Your task to perform on an android device: Open display settings Image 0: 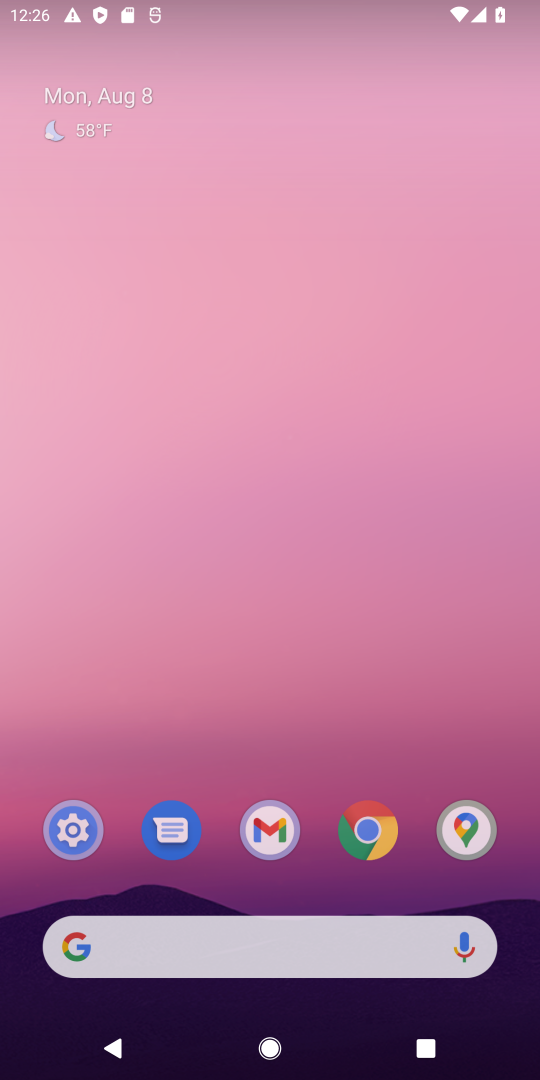
Step 0: press home button
Your task to perform on an android device: Open display settings Image 1: 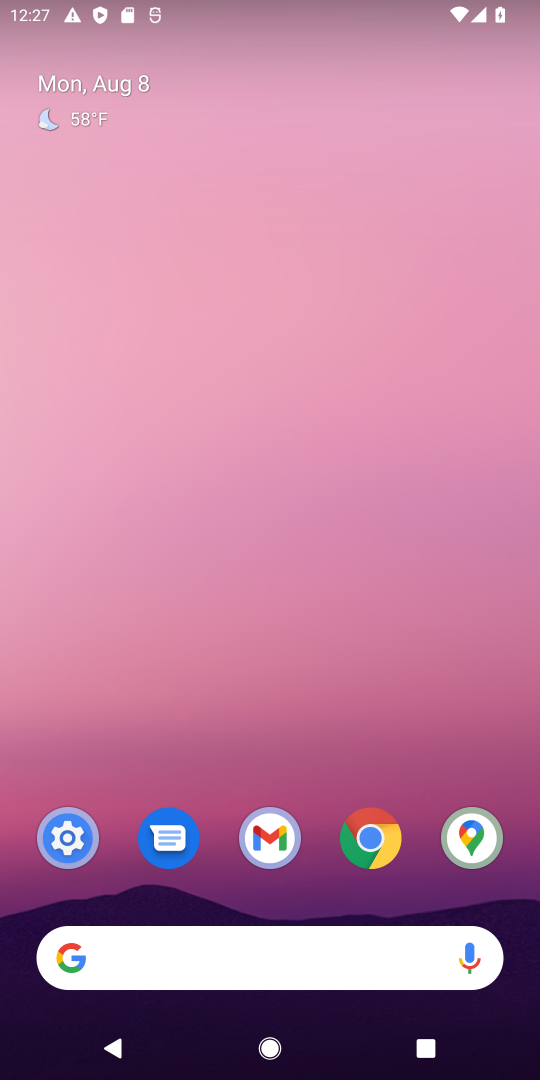
Step 1: click (64, 842)
Your task to perform on an android device: Open display settings Image 2: 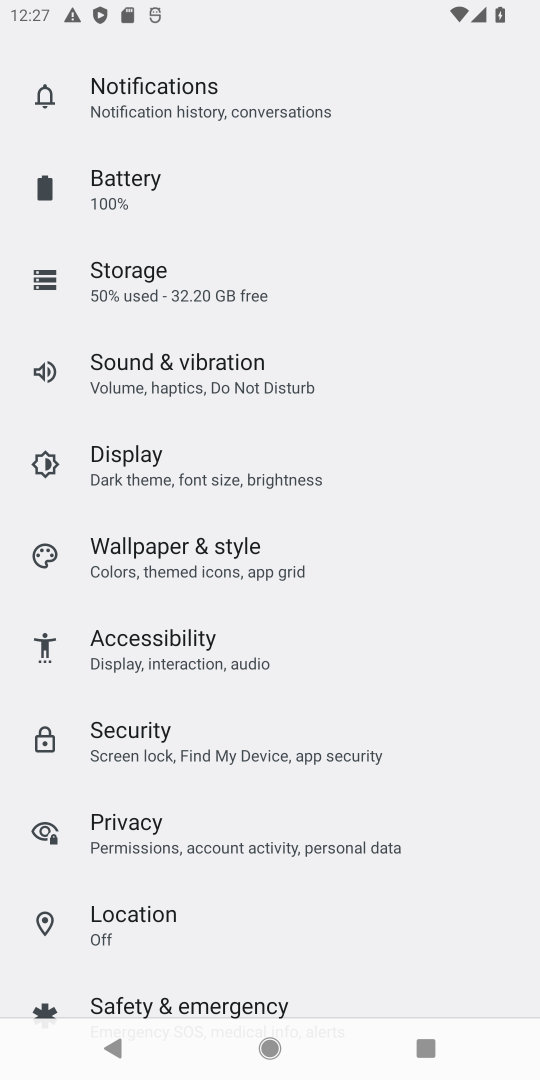
Step 2: click (110, 455)
Your task to perform on an android device: Open display settings Image 3: 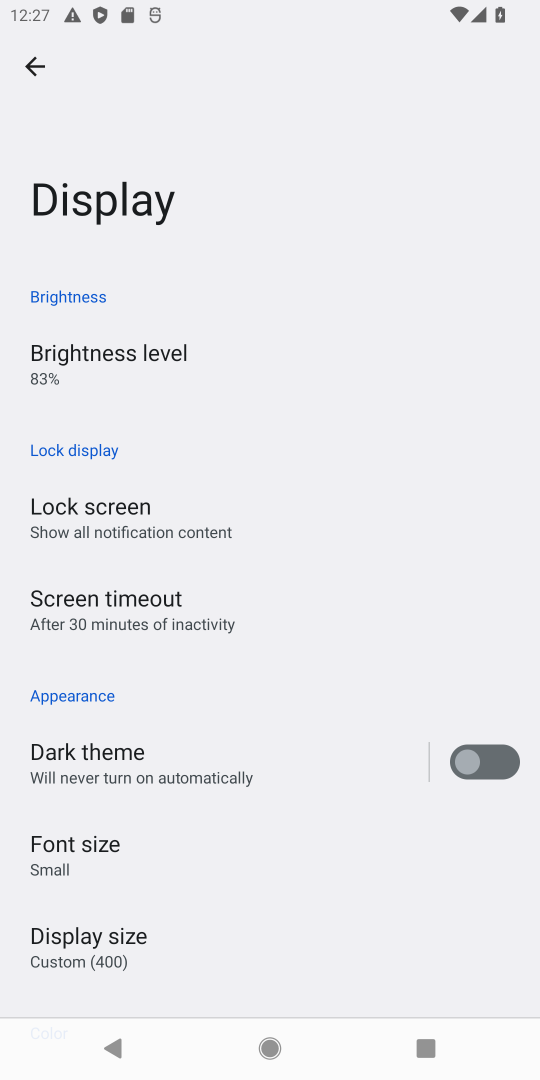
Step 3: task complete